Your task to perform on an android device: empty trash in the gmail app Image 0: 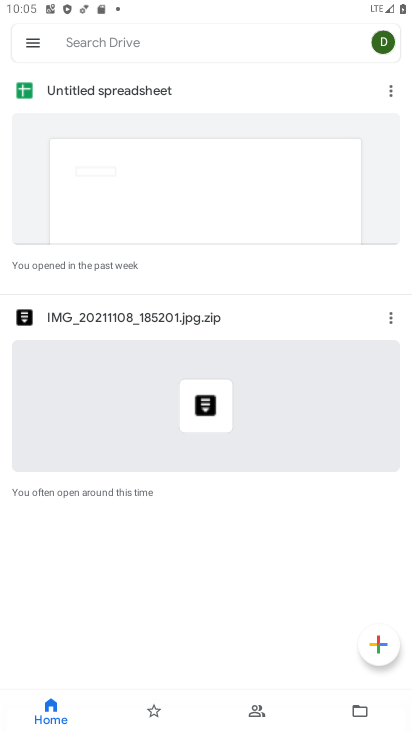
Step 0: press home button
Your task to perform on an android device: empty trash in the gmail app Image 1: 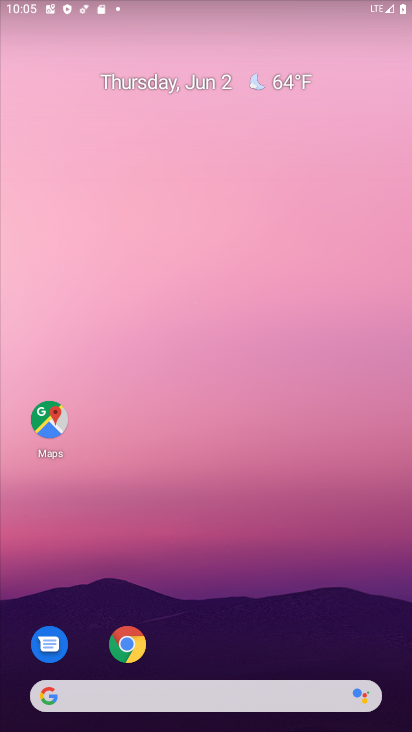
Step 1: drag from (316, 591) to (343, 130)
Your task to perform on an android device: empty trash in the gmail app Image 2: 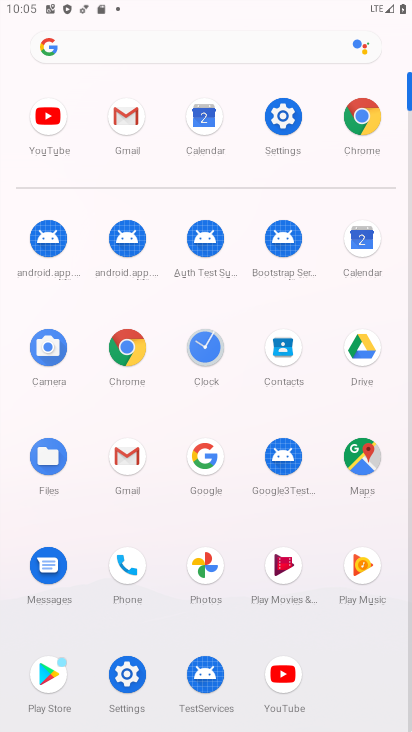
Step 2: click (127, 124)
Your task to perform on an android device: empty trash in the gmail app Image 3: 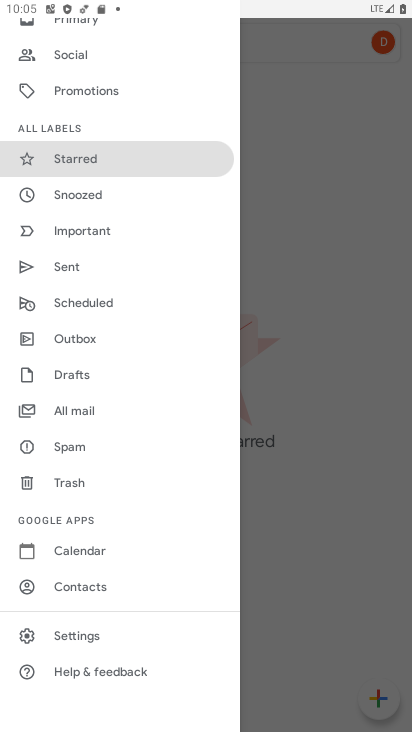
Step 3: drag from (97, 103) to (66, 728)
Your task to perform on an android device: empty trash in the gmail app Image 4: 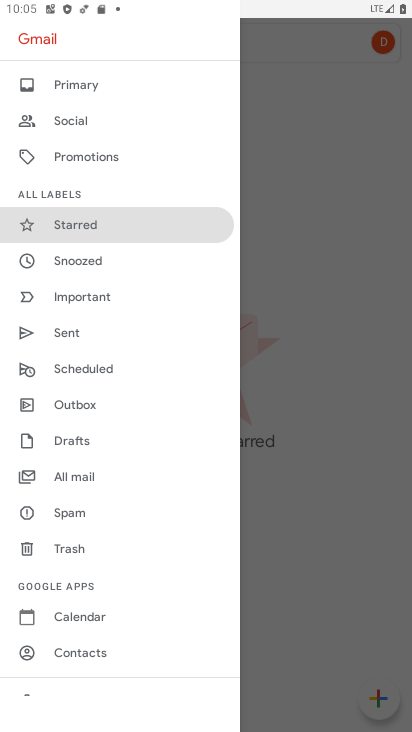
Step 4: click (78, 547)
Your task to perform on an android device: empty trash in the gmail app Image 5: 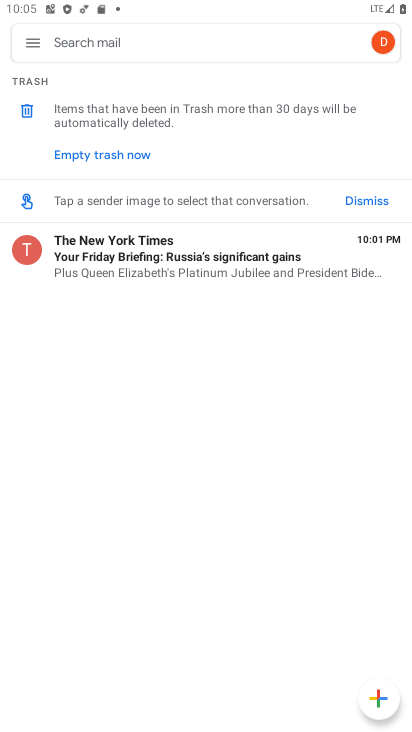
Step 5: click (295, 259)
Your task to perform on an android device: empty trash in the gmail app Image 6: 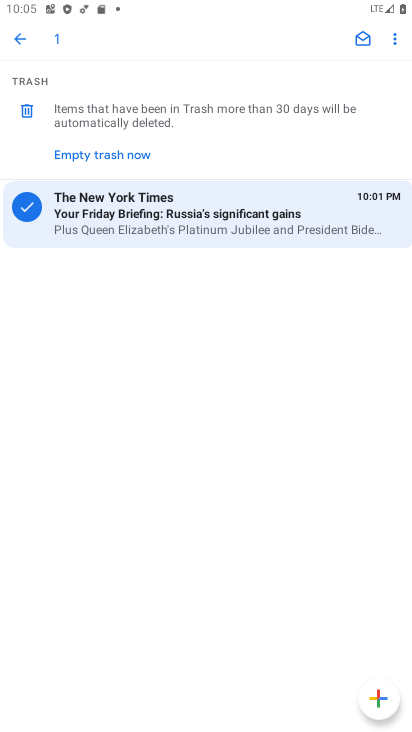
Step 6: click (390, 36)
Your task to perform on an android device: empty trash in the gmail app Image 7: 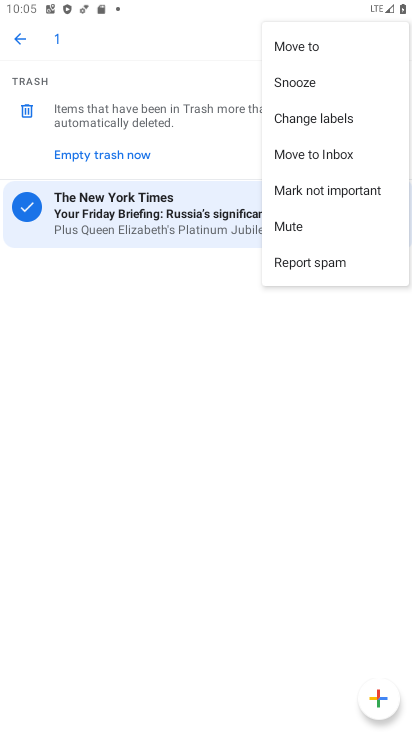
Step 7: click (154, 113)
Your task to perform on an android device: empty trash in the gmail app Image 8: 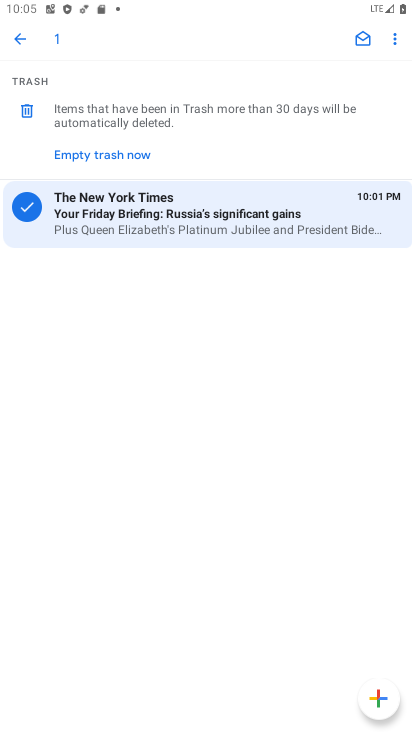
Step 8: click (154, 113)
Your task to perform on an android device: empty trash in the gmail app Image 9: 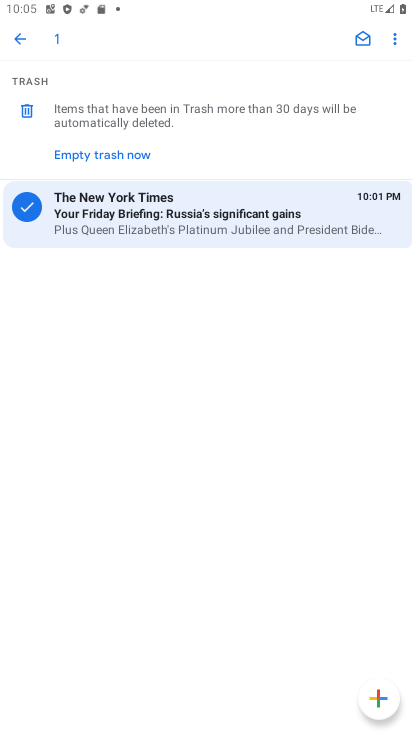
Step 9: click (19, 117)
Your task to perform on an android device: empty trash in the gmail app Image 10: 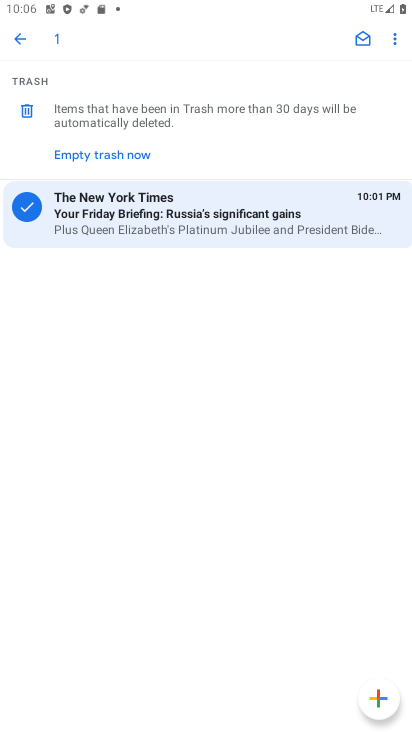
Step 10: click (128, 149)
Your task to perform on an android device: empty trash in the gmail app Image 11: 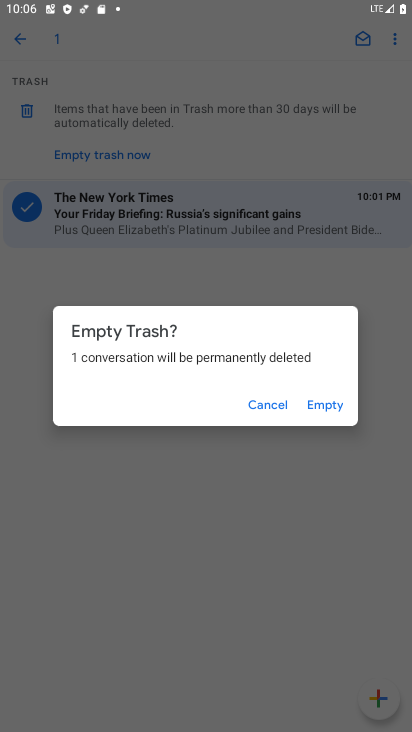
Step 11: click (325, 408)
Your task to perform on an android device: empty trash in the gmail app Image 12: 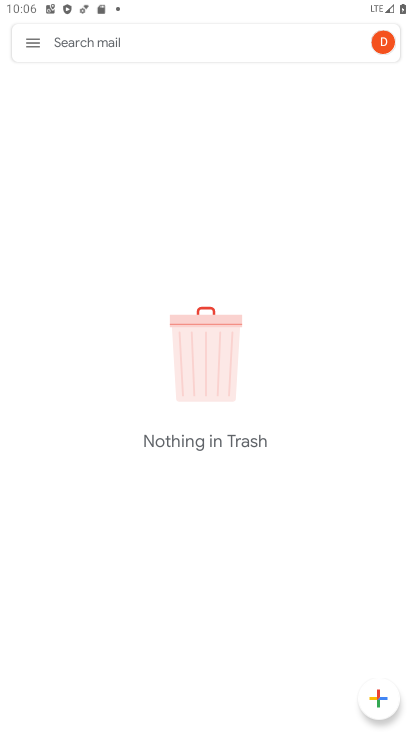
Step 12: task complete